Your task to perform on an android device: Open Yahoo.com Image 0: 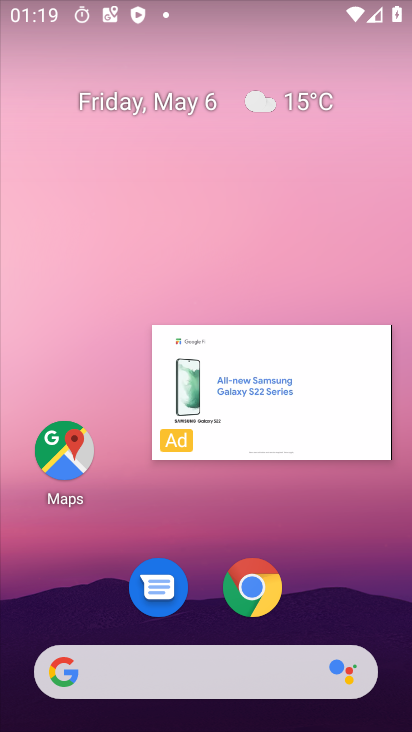
Step 0: press home button
Your task to perform on an android device: Open Yahoo.com Image 1: 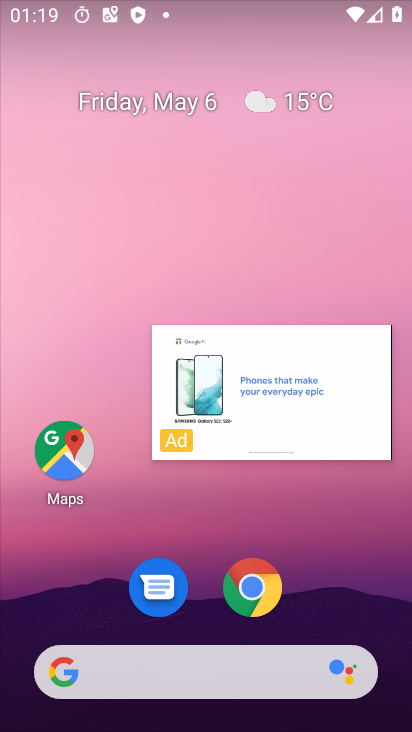
Step 1: click (244, 583)
Your task to perform on an android device: Open Yahoo.com Image 2: 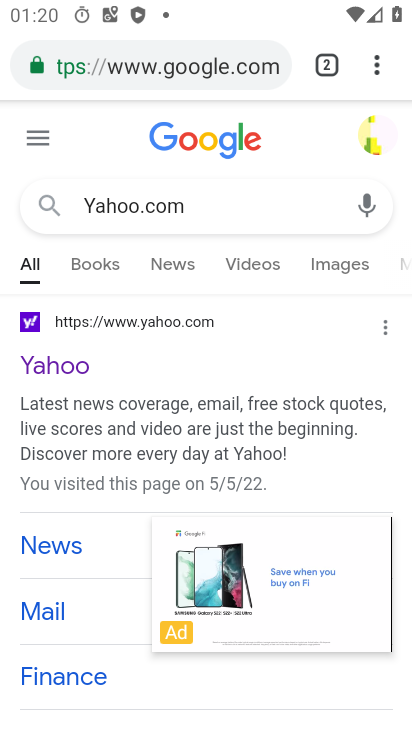
Step 2: task complete